Your task to perform on an android device: change the clock display to show seconds Image 0: 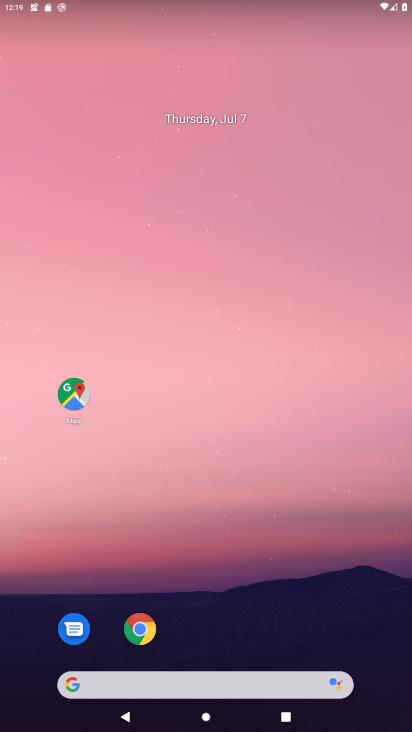
Step 0: drag from (244, 647) to (166, 361)
Your task to perform on an android device: change the clock display to show seconds Image 1: 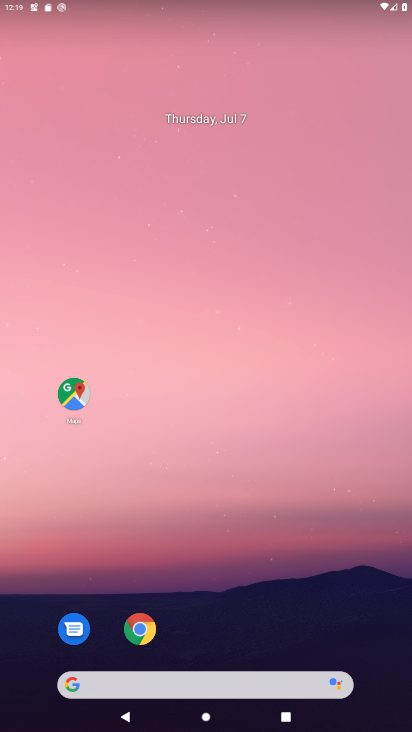
Step 1: drag from (268, 606) to (185, 179)
Your task to perform on an android device: change the clock display to show seconds Image 2: 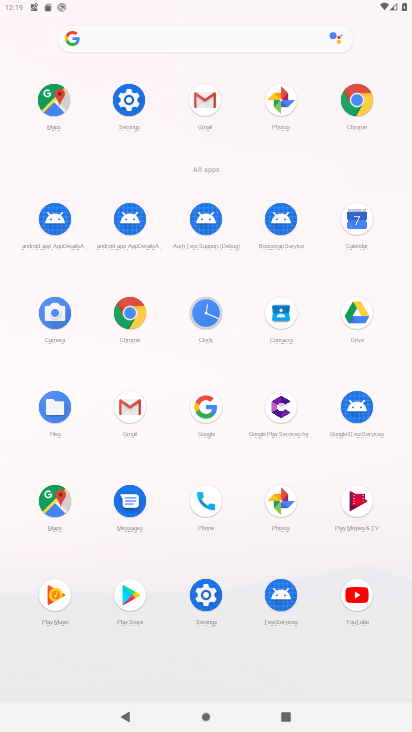
Step 2: click (130, 110)
Your task to perform on an android device: change the clock display to show seconds Image 3: 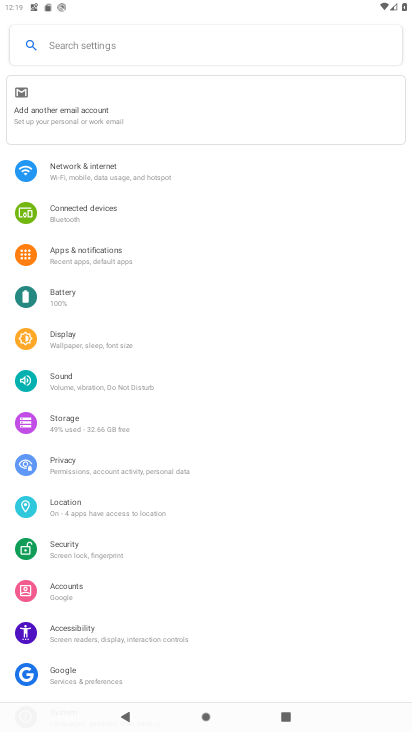
Step 3: press home button
Your task to perform on an android device: change the clock display to show seconds Image 4: 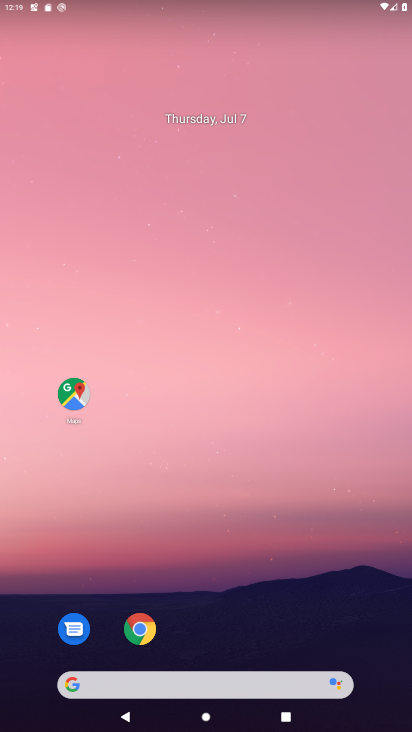
Step 4: drag from (276, 606) to (208, 151)
Your task to perform on an android device: change the clock display to show seconds Image 5: 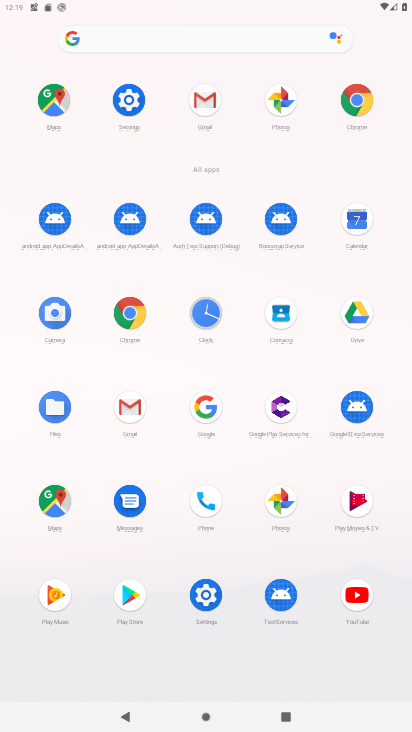
Step 5: click (213, 309)
Your task to perform on an android device: change the clock display to show seconds Image 6: 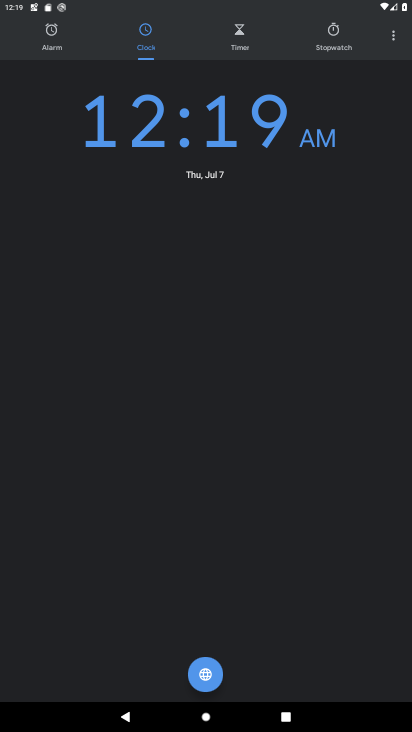
Step 6: click (399, 34)
Your task to perform on an android device: change the clock display to show seconds Image 7: 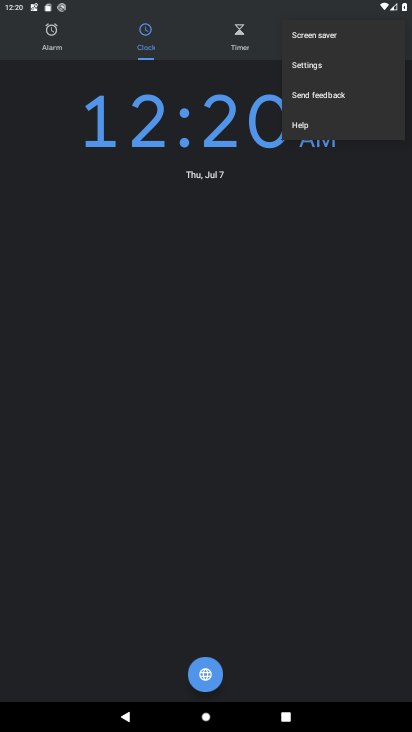
Step 7: click (360, 70)
Your task to perform on an android device: change the clock display to show seconds Image 8: 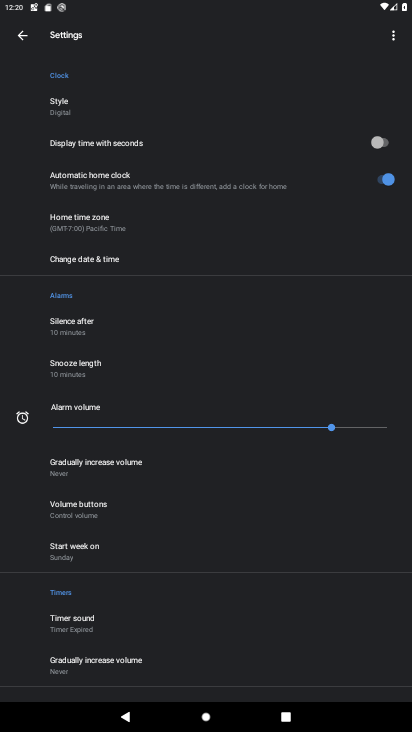
Step 8: click (388, 142)
Your task to perform on an android device: change the clock display to show seconds Image 9: 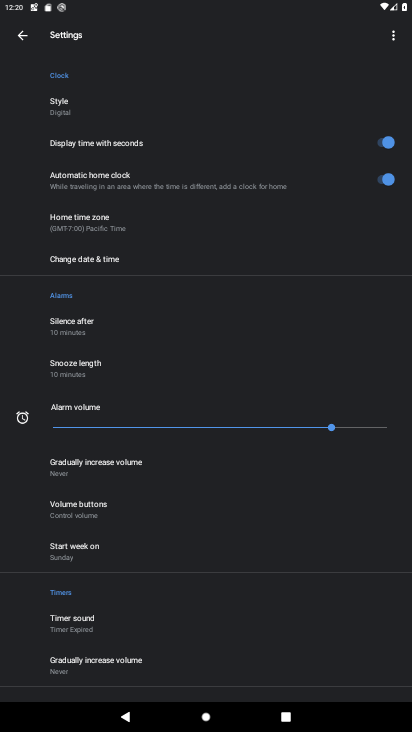
Step 9: task complete